Your task to perform on an android device: Show me recent news Image 0: 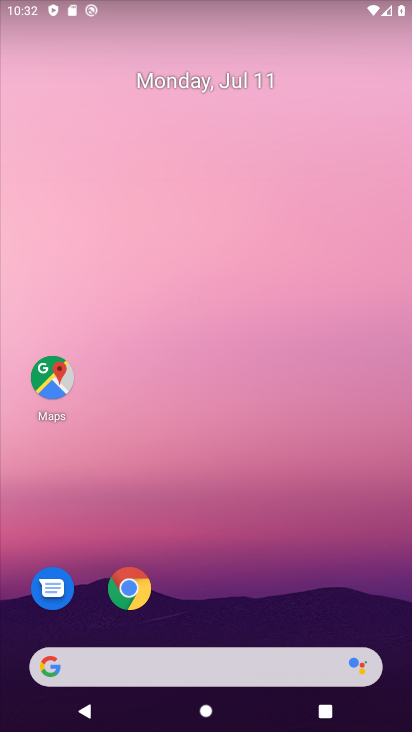
Step 0: drag from (8, 246) to (386, 296)
Your task to perform on an android device: Show me recent news Image 1: 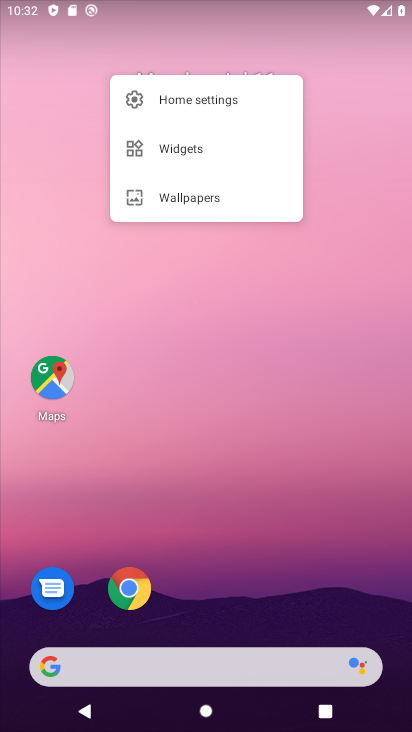
Step 1: click (386, 296)
Your task to perform on an android device: Show me recent news Image 2: 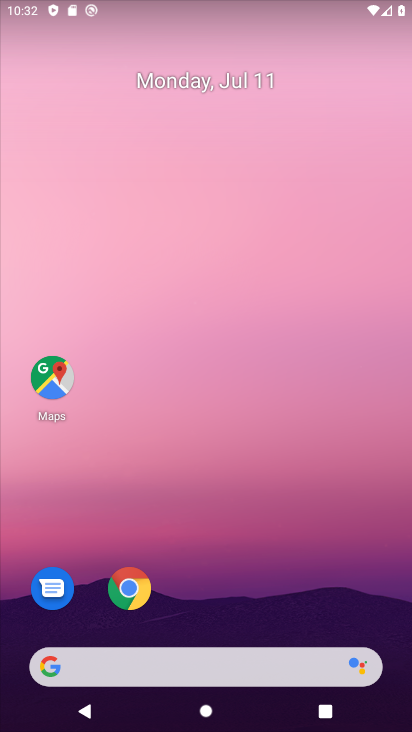
Step 2: task complete